Your task to perform on an android device: open app "AliExpress" (install if not already installed) Image 0: 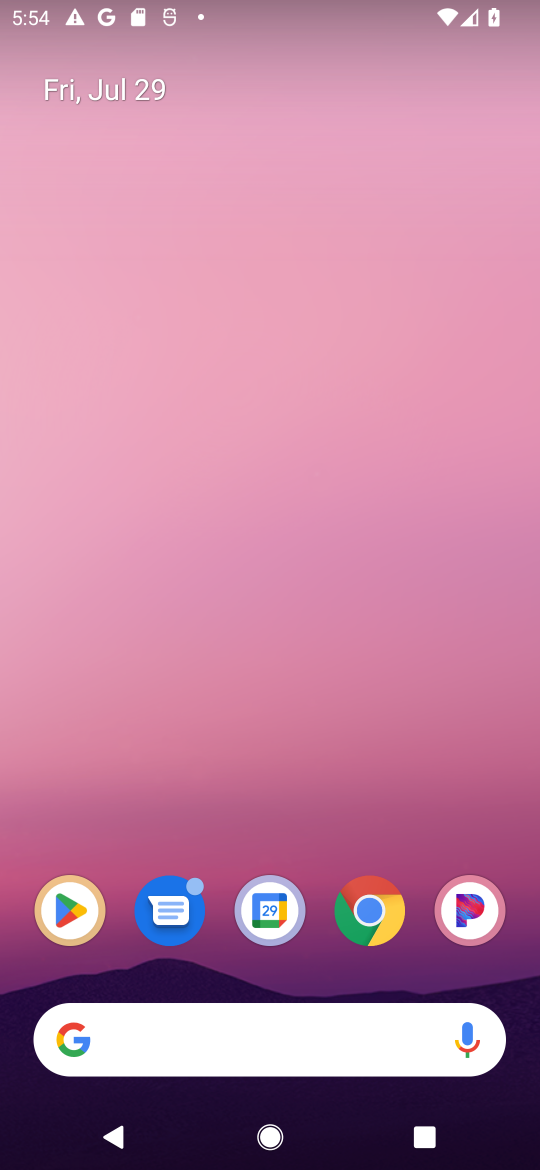
Step 0: drag from (275, 939) to (292, 212)
Your task to perform on an android device: open app "AliExpress" (install if not already installed) Image 1: 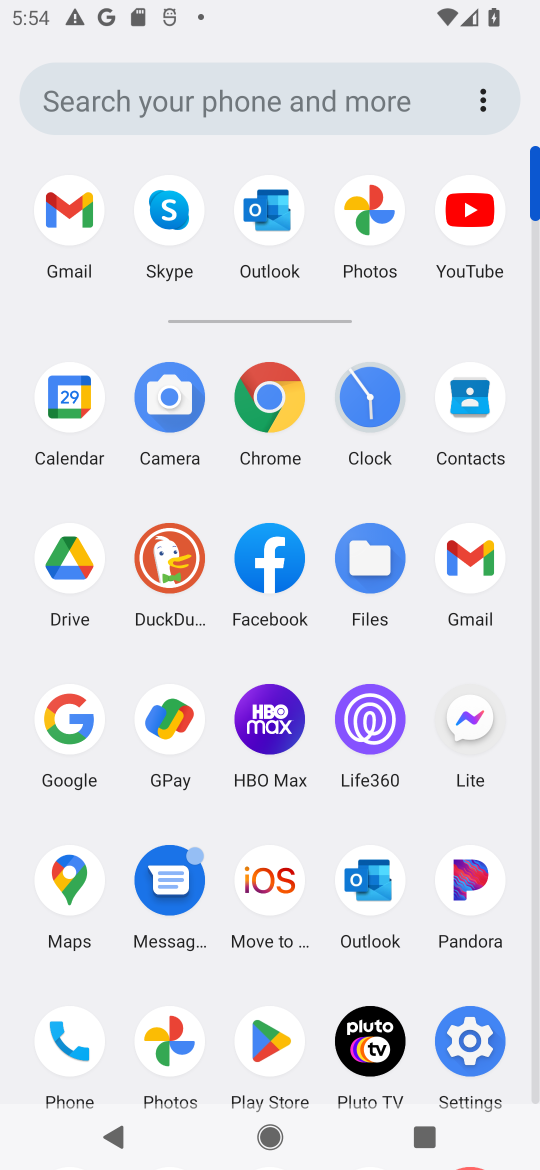
Step 1: click (269, 1052)
Your task to perform on an android device: open app "AliExpress" (install if not already installed) Image 2: 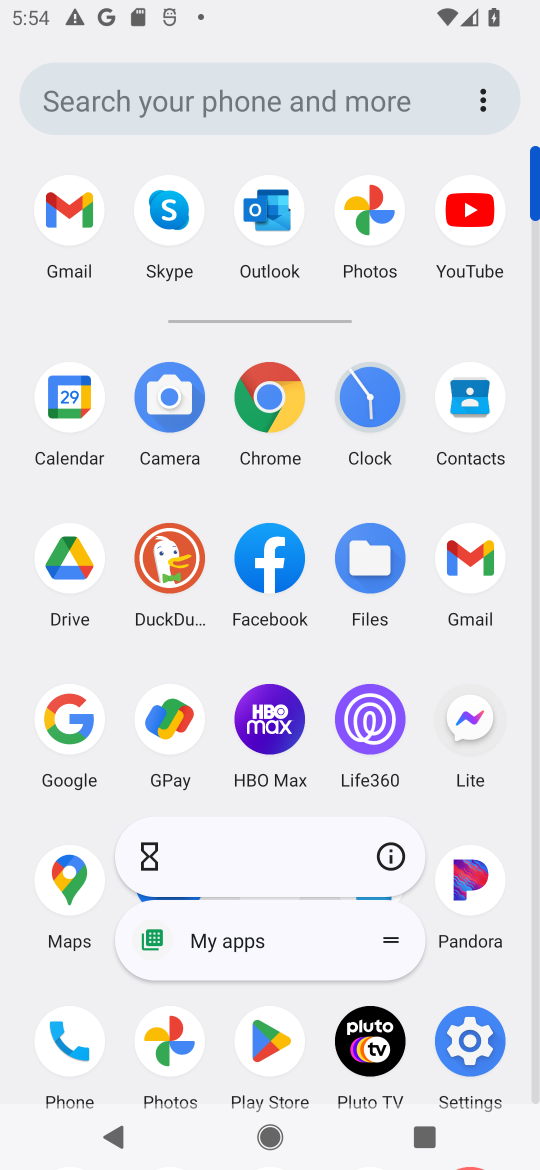
Step 2: click (267, 1052)
Your task to perform on an android device: open app "AliExpress" (install if not already installed) Image 3: 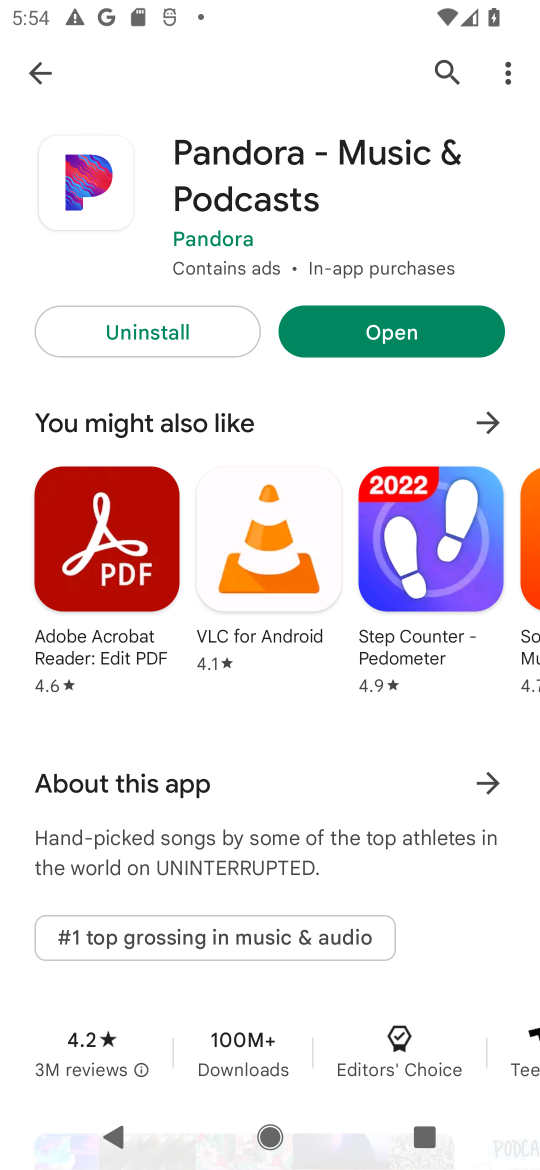
Step 3: click (24, 76)
Your task to perform on an android device: open app "AliExpress" (install if not already installed) Image 4: 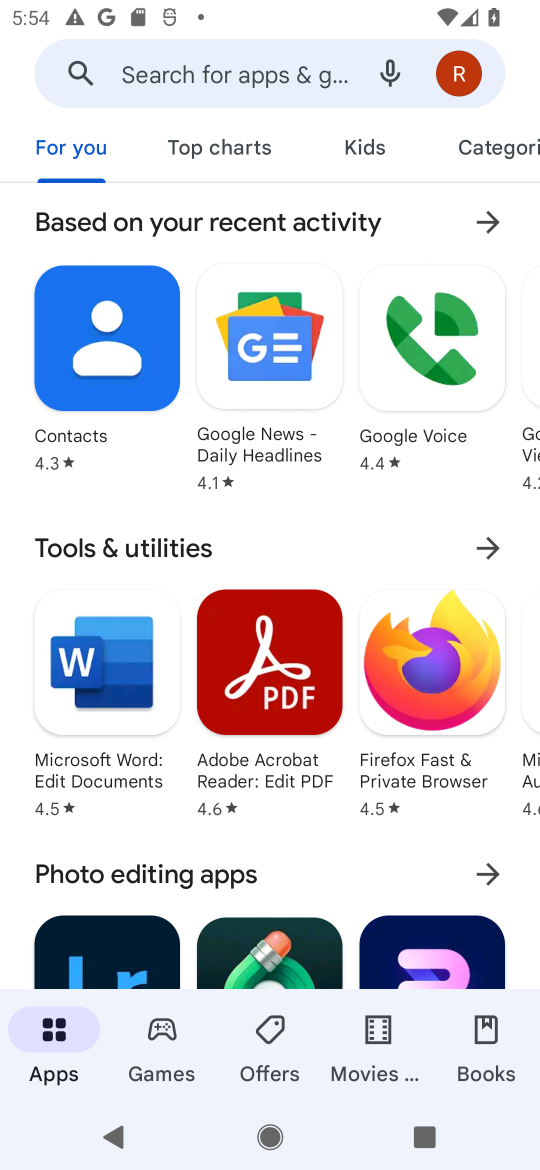
Step 4: click (252, 74)
Your task to perform on an android device: open app "AliExpress" (install if not already installed) Image 5: 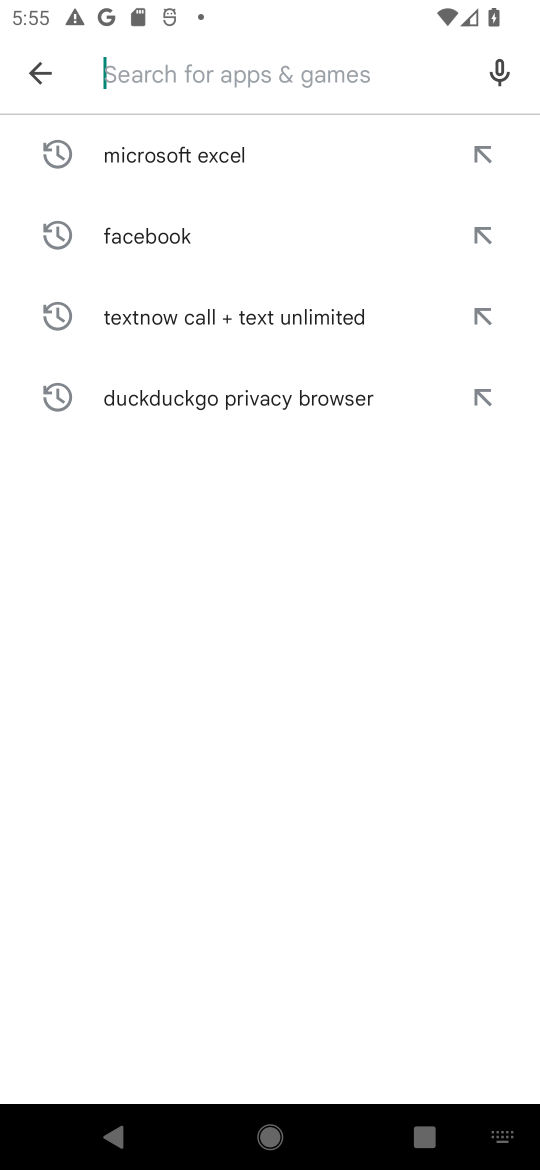
Step 5: type "AliExpress"
Your task to perform on an android device: open app "AliExpress" (install if not already installed) Image 6: 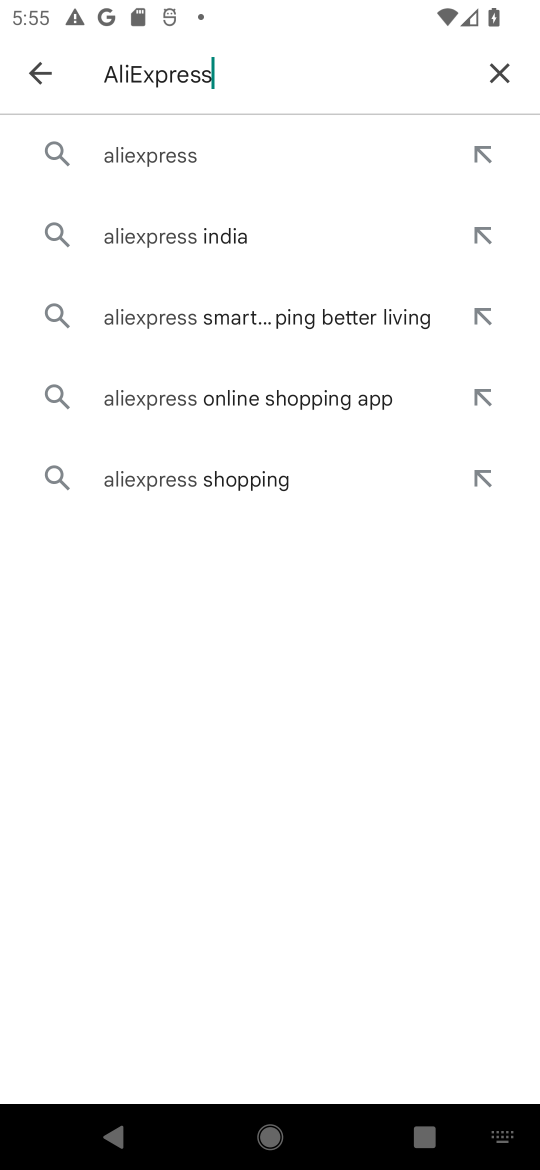
Step 6: click (194, 156)
Your task to perform on an android device: open app "AliExpress" (install if not already installed) Image 7: 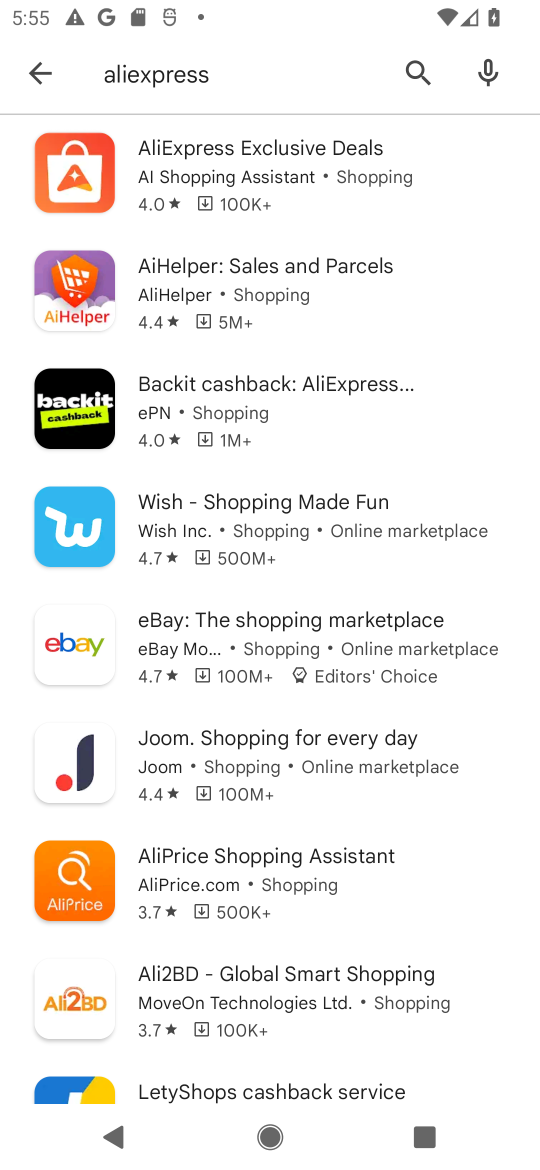
Step 7: click (193, 159)
Your task to perform on an android device: open app "AliExpress" (install if not already installed) Image 8: 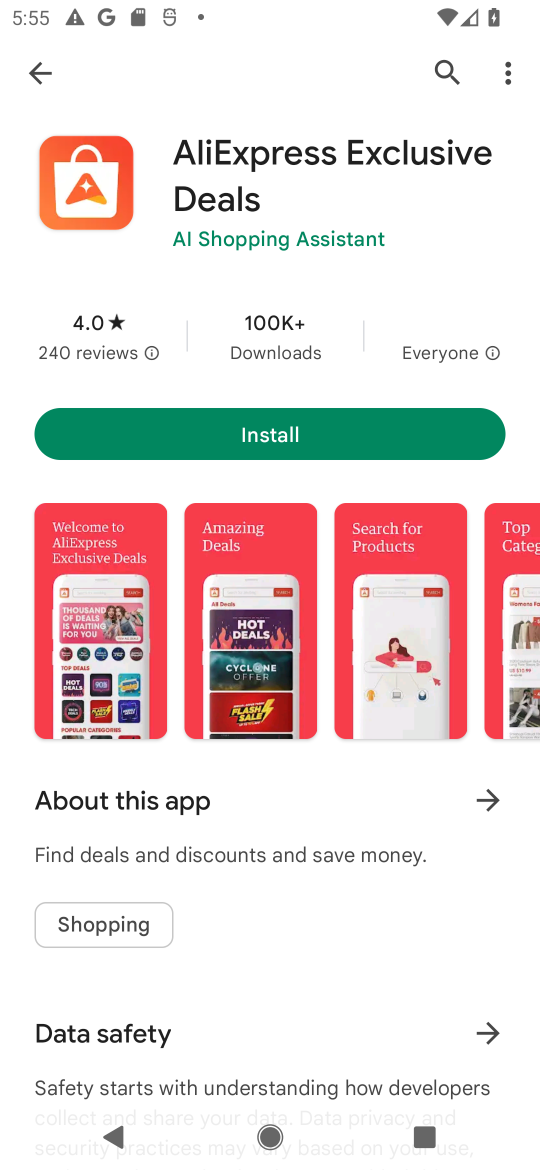
Step 8: click (273, 426)
Your task to perform on an android device: open app "AliExpress" (install if not already installed) Image 9: 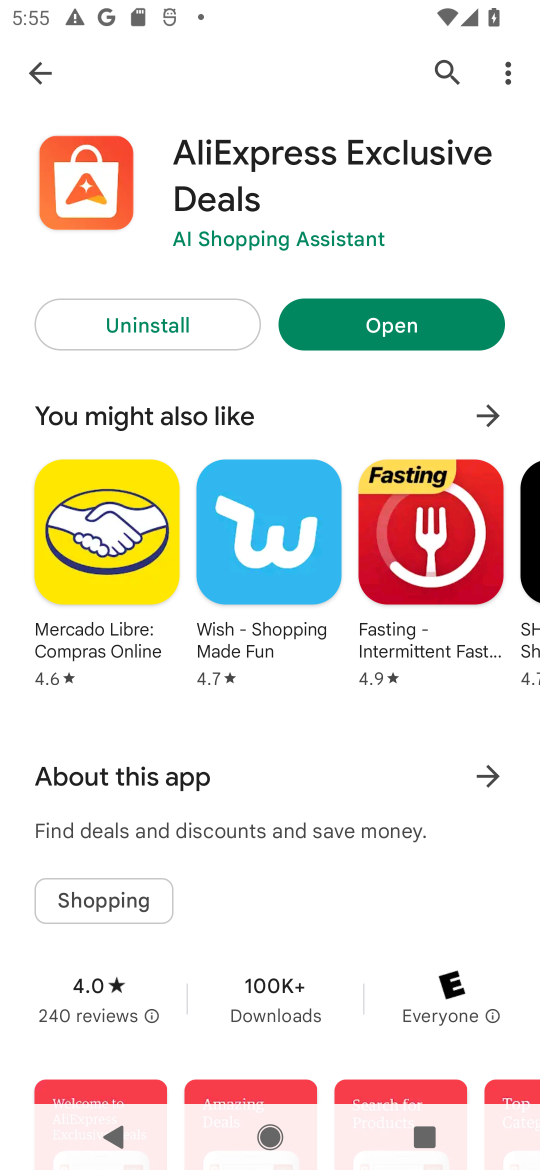
Step 9: click (359, 326)
Your task to perform on an android device: open app "AliExpress" (install if not already installed) Image 10: 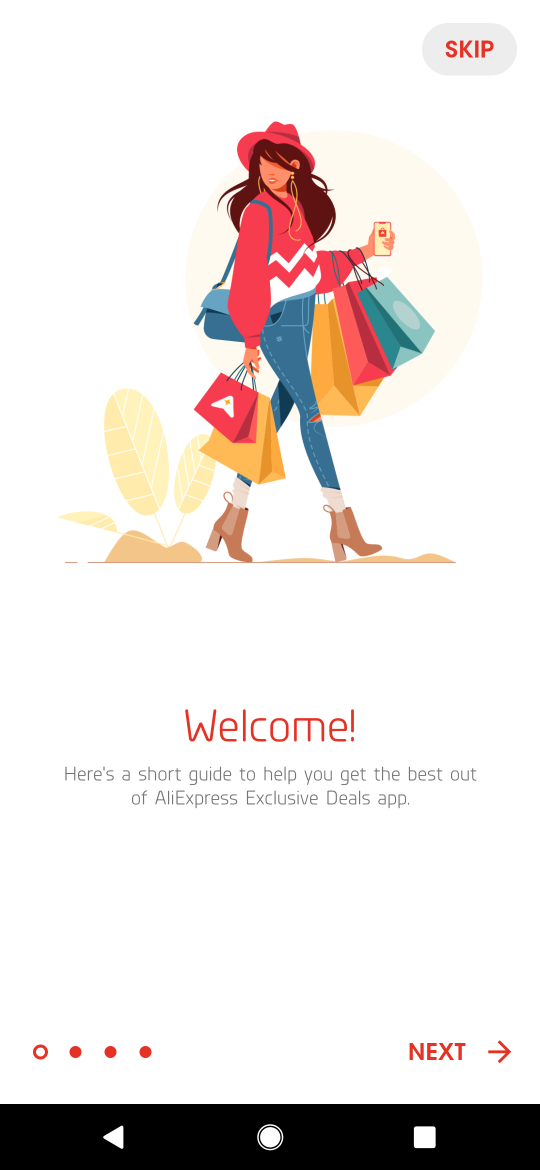
Step 10: click (474, 1039)
Your task to perform on an android device: open app "AliExpress" (install if not already installed) Image 11: 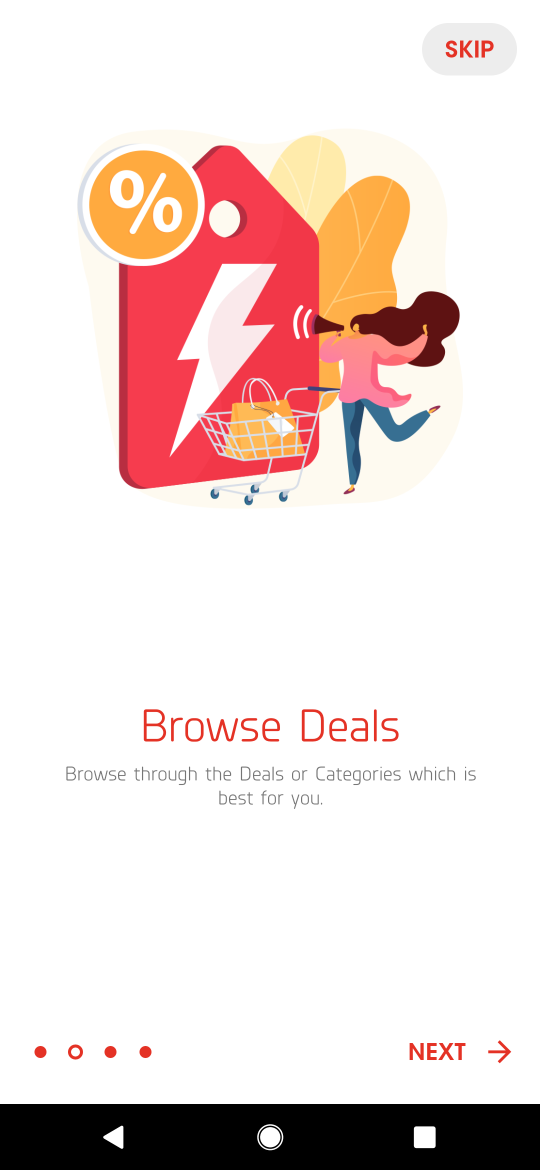
Step 11: click (473, 1050)
Your task to perform on an android device: open app "AliExpress" (install if not already installed) Image 12: 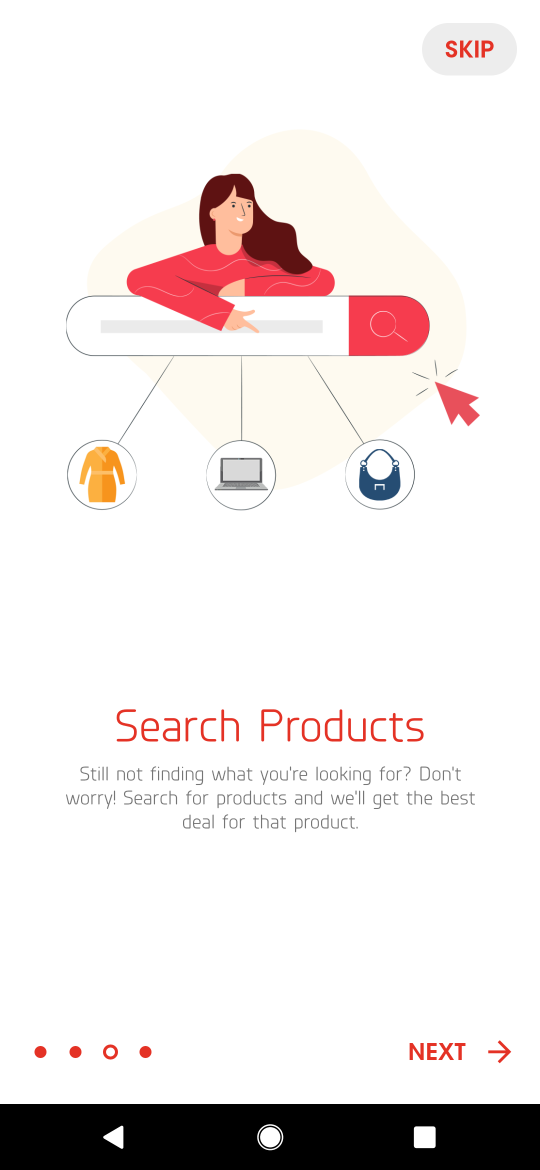
Step 12: click (473, 1050)
Your task to perform on an android device: open app "AliExpress" (install if not already installed) Image 13: 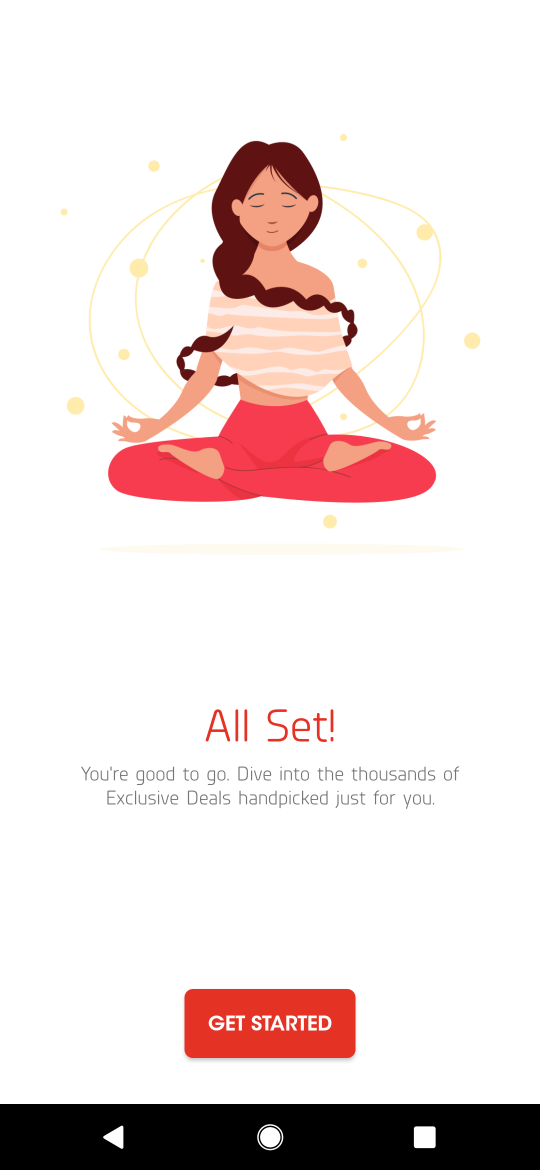
Step 13: click (300, 1010)
Your task to perform on an android device: open app "AliExpress" (install if not already installed) Image 14: 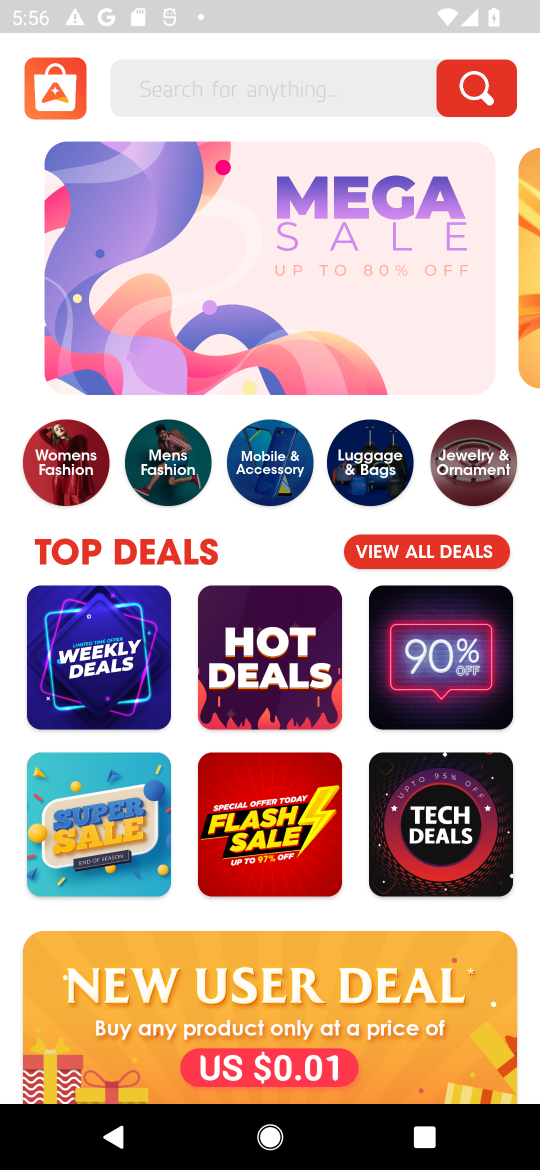
Step 14: task complete